Your task to perform on an android device: Go to CNN.com Image 0: 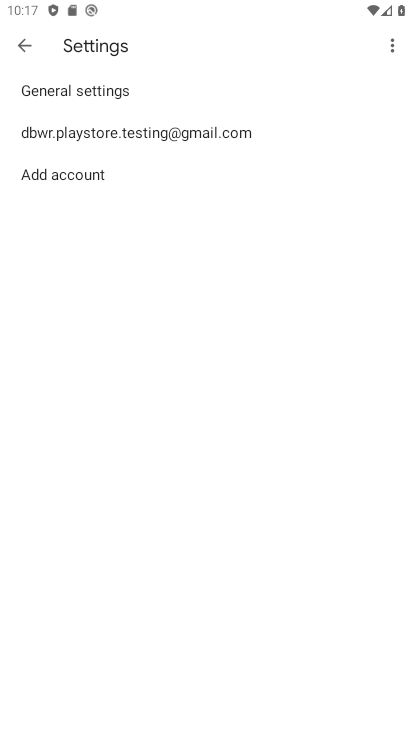
Step 0: press home button
Your task to perform on an android device: Go to CNN.com Image 1: 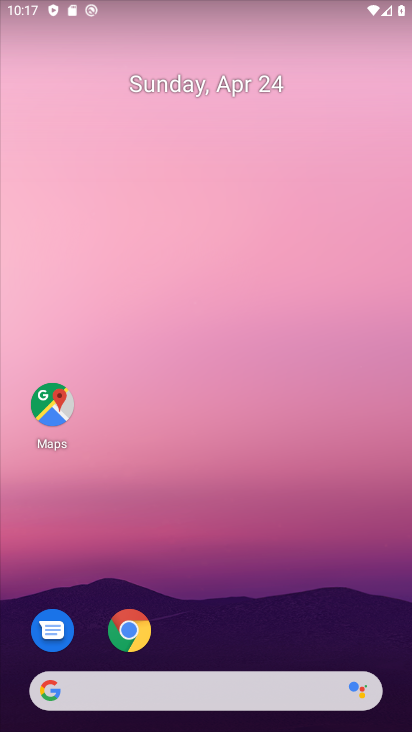
Step 1: click (221, 687)
Your task to perform on an android device: Go to CNN.com Image 2: 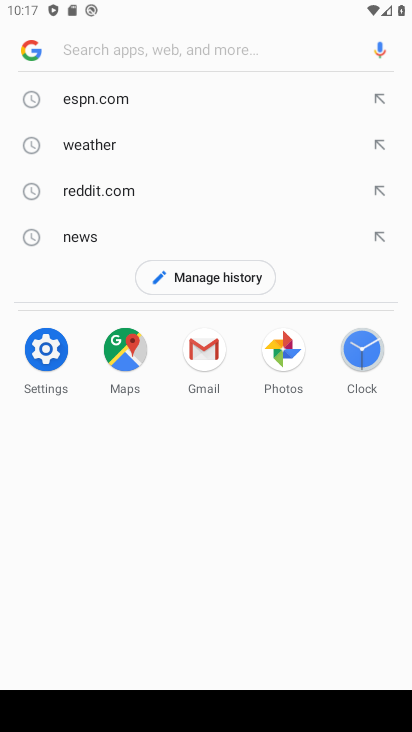
Step 2: type "CNN.com"
Your task to perform on an android device: Go to CNN.com Image 3: 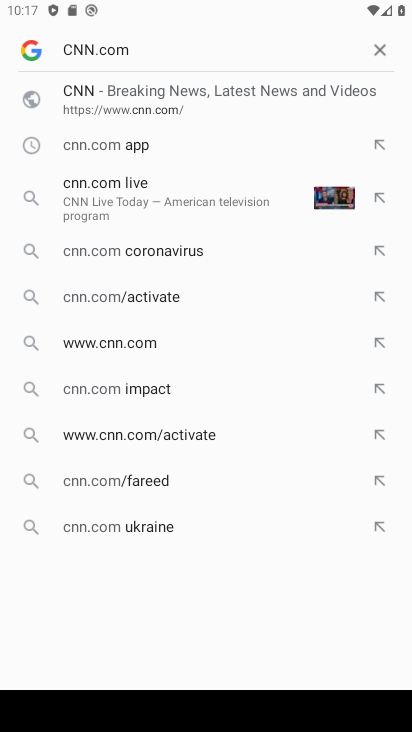
Step 3: click (166, 342)
Your task to perform on an android device: Go to CNN.com Image 4: 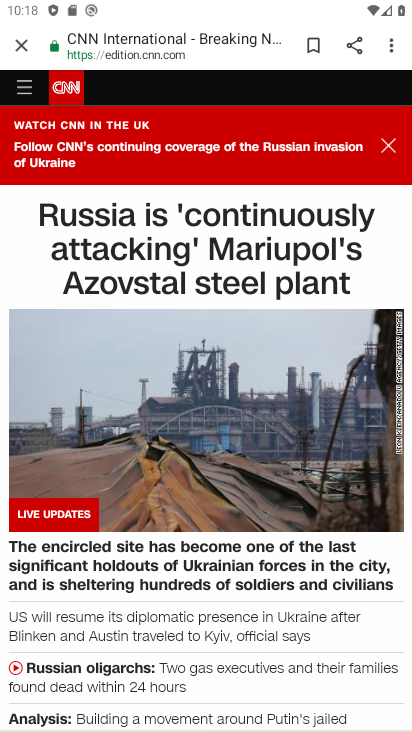
Step 4: task complete